Your task to perform on an android device: open a bookmark in the chrome app Image 0: 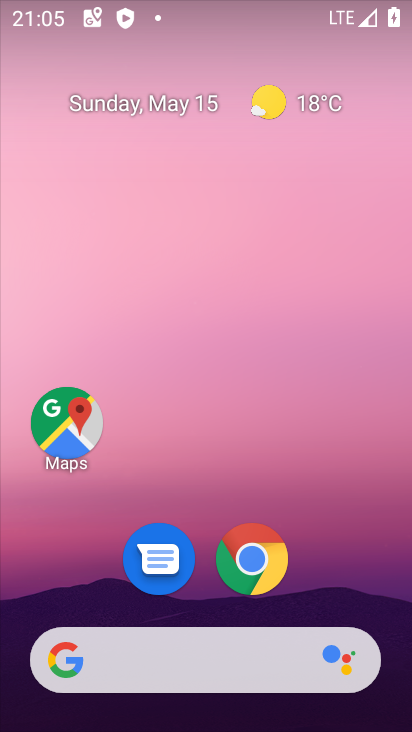
Step 0: click (254, 560)
Your task to perform on an android device: open a bookmark in the chrome app Image 1: 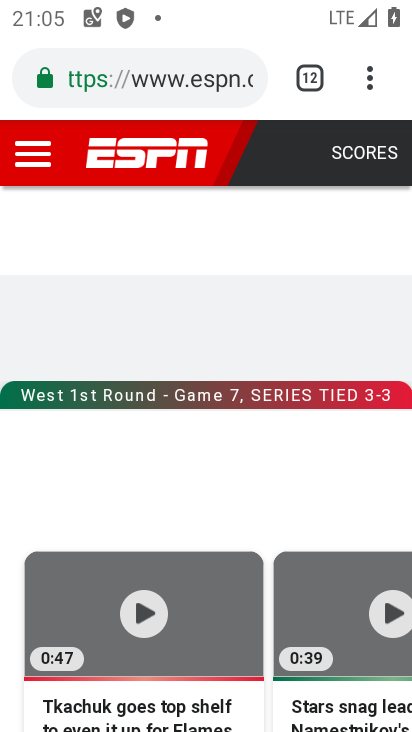
Step 1: click (367, 77)
Your task to perform on an android device: open a bookmark in the chrome app Image 2: 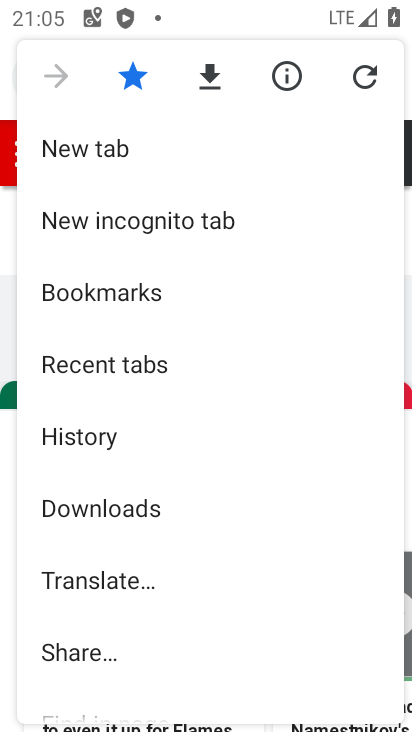
Step 2: click (133, 302)
Your task to perform on an android device: open a bookmark in the chrome app Image 3: 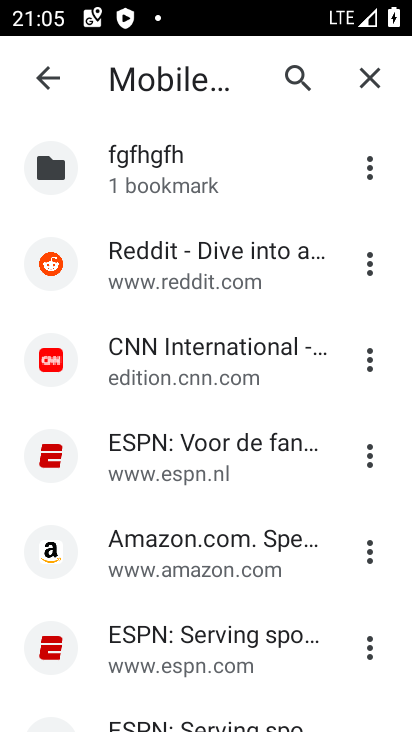
Step 3: task complete